Your task to perform on an android device: Go to battery settings Image 0: 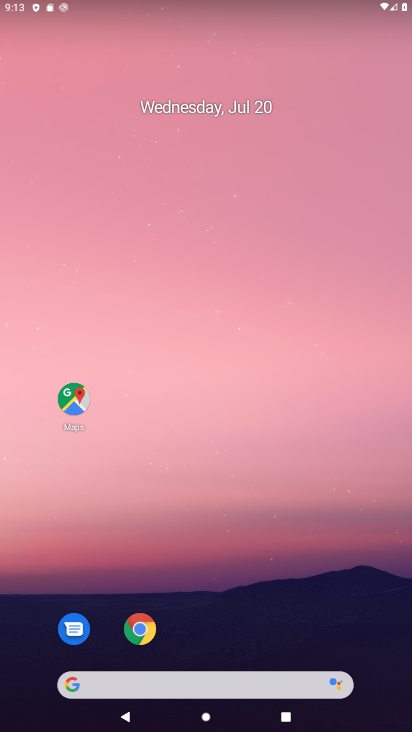
Step 0: drag from (228, 591) to (182, 122)
Your task to perform on an android device: Go to battery settings Image 1: 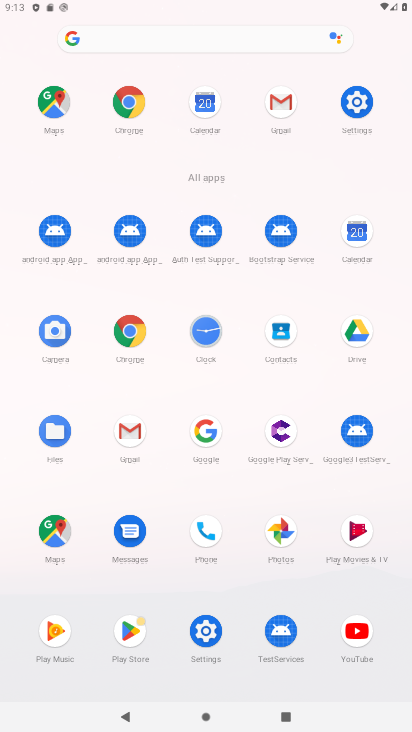
Step 1: click (348, 94)
Your task to perform on an android device: Go to battery settings Image 2: 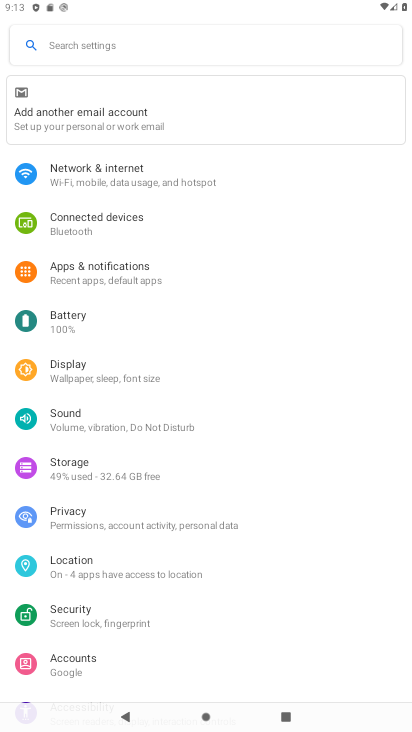
Step 2: click (78, 330)
Your task to perform on an android device: Go to battery settings Image 3: 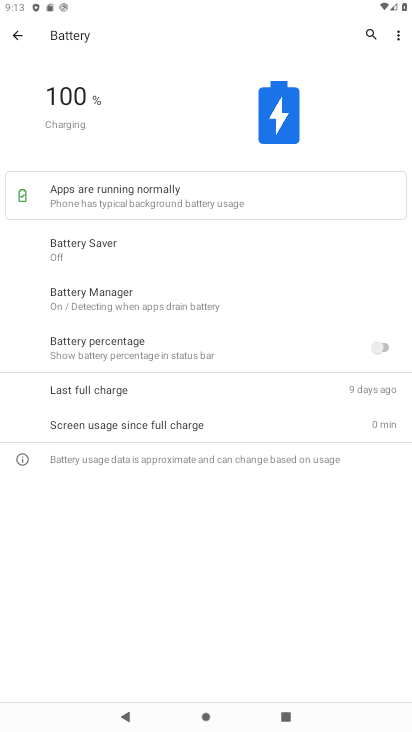
Step 3: task complete